Your task to perform on an android device: read, delete, or share a saved page in the chrome app Image 0: 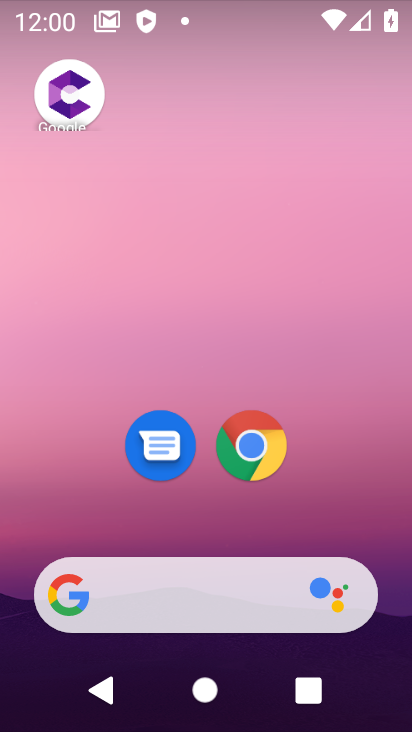
Step 0: drag from (348, 555) to (156, 170)
Your task to perform on an android device: read, delete, or share a saved page in the chrome app Image 1: 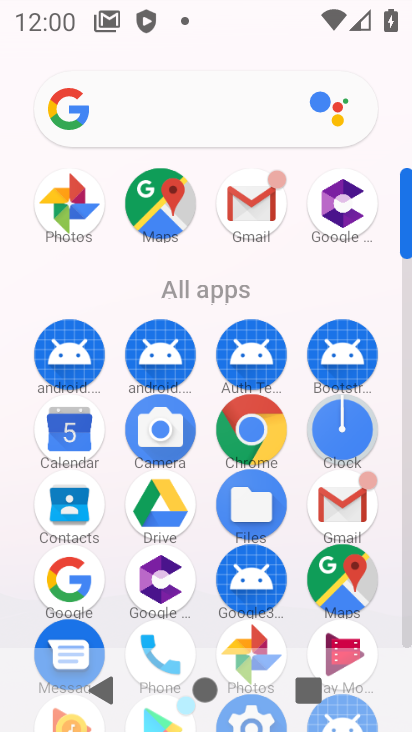
Step 1: click (253, 419)
Your task to perform on an android device: read, delete, or share a saved page in the chrome app Image 2: 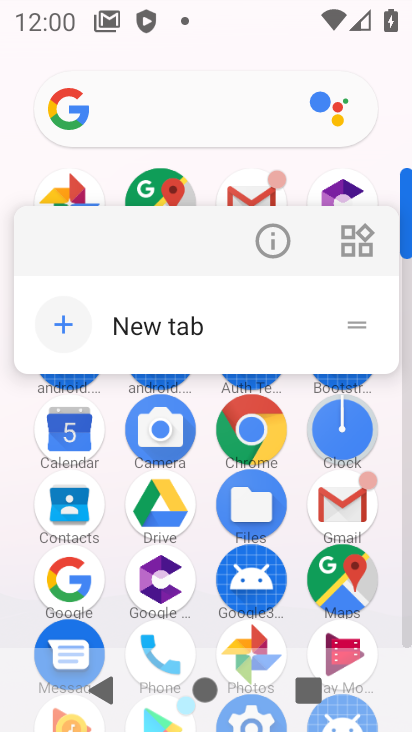
Step 2: click (398, 124)
Your task to perform on an android device: read, delete, or share a saved page in the chrome app Image 3: 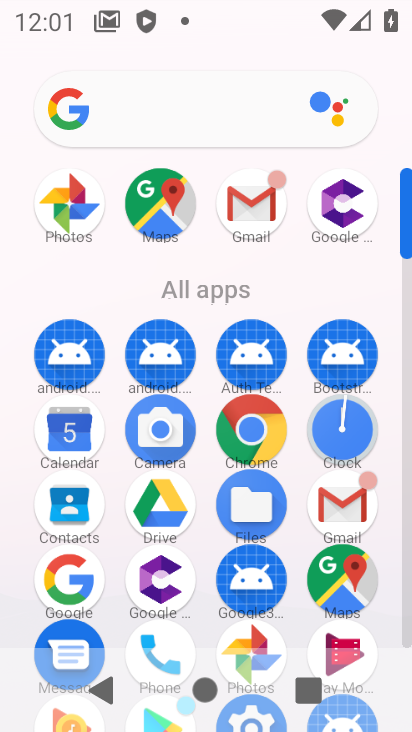
Step 3: click (242, 421)
Your task to perform on an android device: read, delete, or share a saved page in the chrome app Image 4: 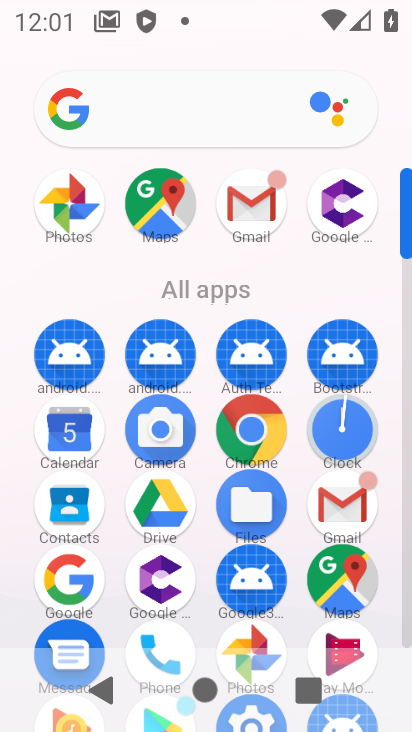
Step 4: click (242, 421)
Your task to perform on an android device: read, delete, or share a saved page in the chrome app Image 5: 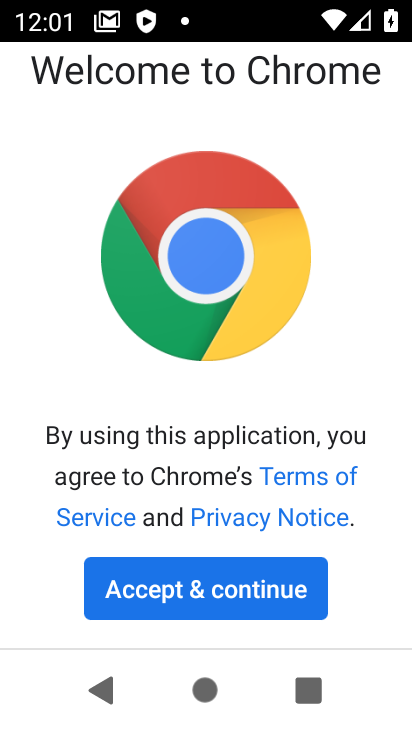
Step 5: click (214, 591)
Your task to perform on an android device: read, delete, or share a saved page in the chrome app Image 6: 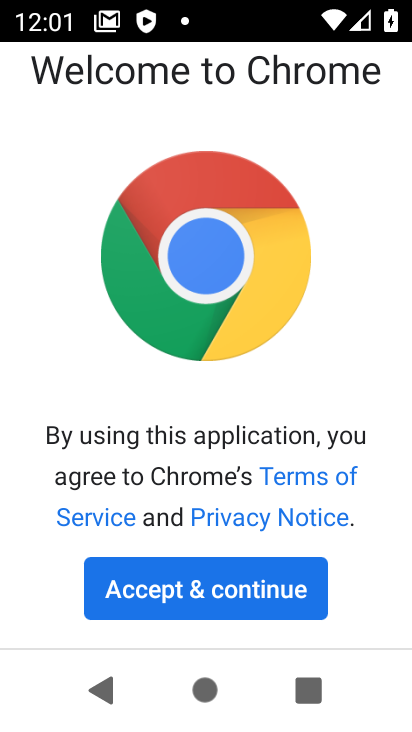
Step 6: click (214, 591)
Your task to perform on an android device: read, delete, or share a saved page in the chrome app Image 7: 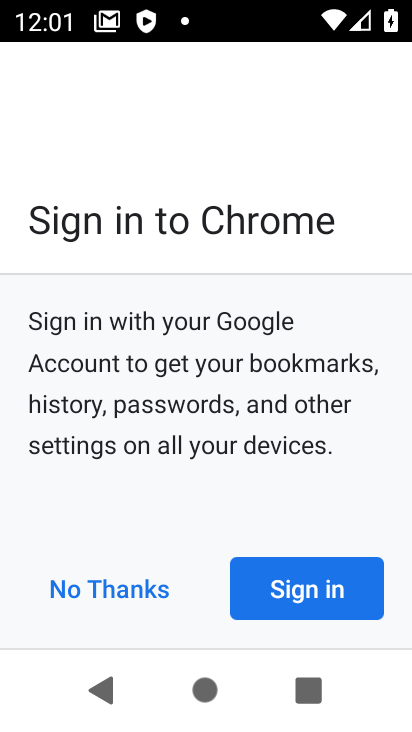
Step 7: click (214, 591)
Your task to perform on an android device: read, delete, or share a saved page in the chrome app Image 8: 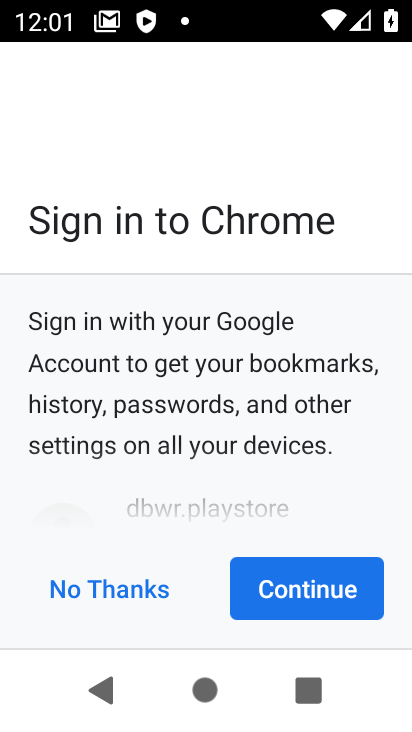
Step 8: click (306, 586)
Your task to perform on an android device: read, delete, or share a saved page in the chrome app Image 9: 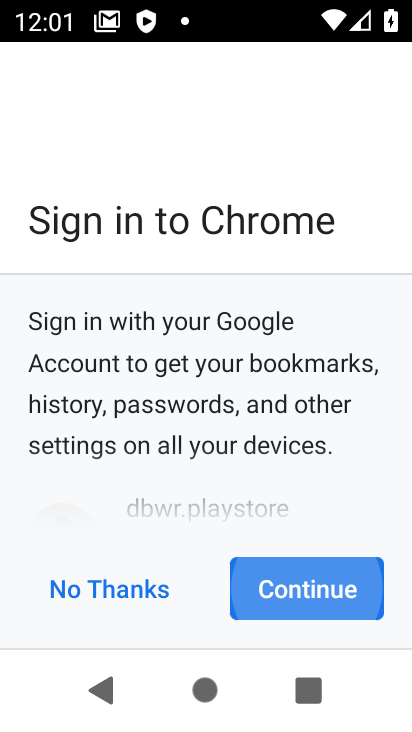
Step 9: click (307, 587)
Your task to perform on an android device: read, delete, or share a saved page in the chrome app Image 10: 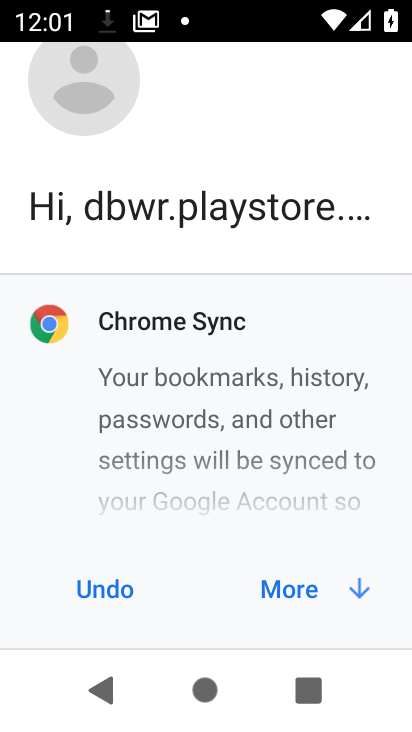
Step 10: click (307, 587)
Your task to perform on an android device: read, delete, or share a saved page in the chrome app Image 11: 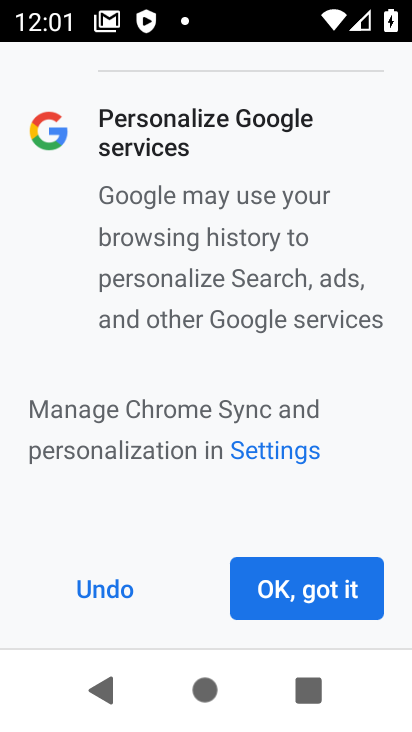
Step 11: click (318, 590)
Your task to perform on an android device: read, delete, or share a saved page in the chrome app Image 12: 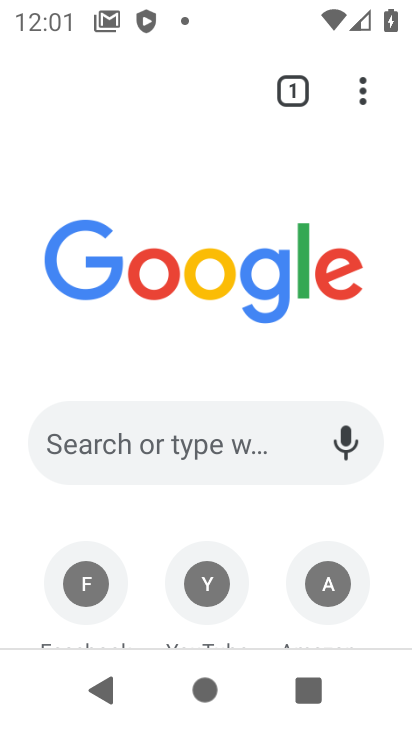
Step 12: click (367, 98)
Your task to perform on an android device: read, delete, or share a saved page in the chrome app Image 13: 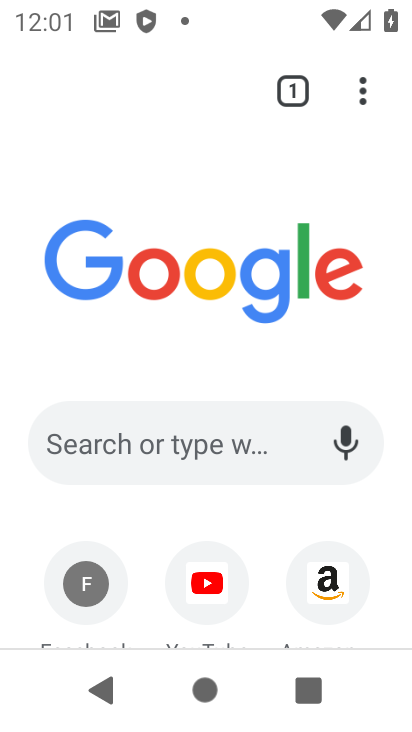
Step 13: click (367, 107)
Your task to perform on an android device: read, delete, or share a saved page in the chrome app Image 14: 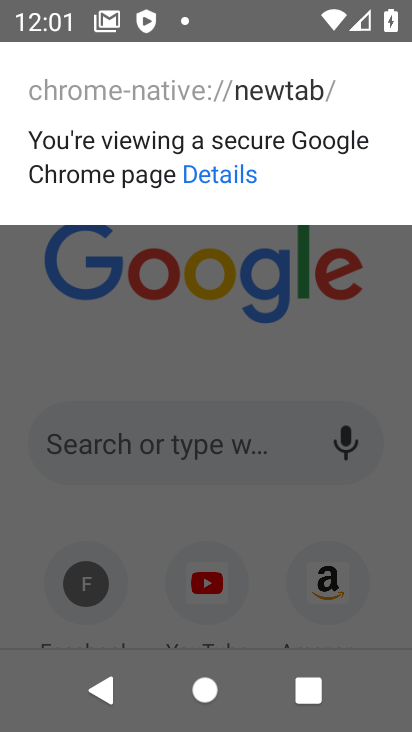
Step 14: click (204, 345)
Your task to perform on an android device: read, delete, or share a saved page in the chrome app Image 15: 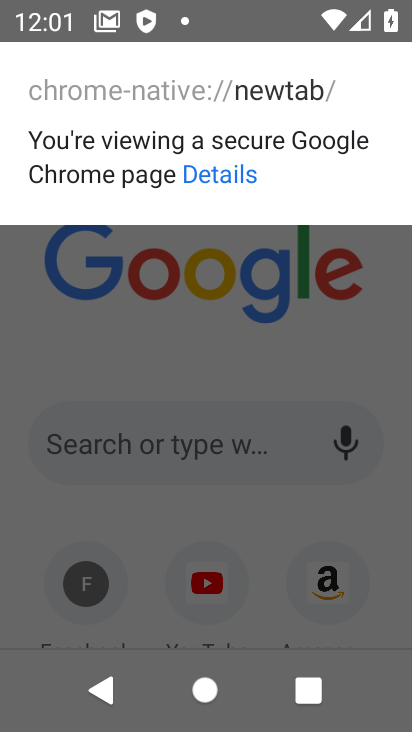
Step 15: click (204, 345)
Your task to perform on an android device: read, delete, or share a saved page in the chrome app Image 16: 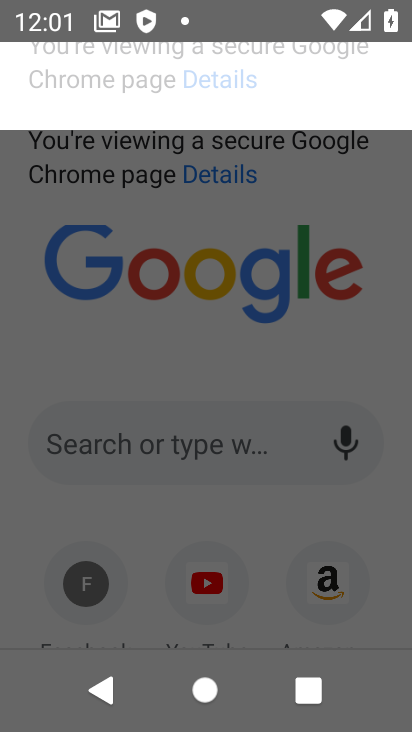
Step 16: click (205, 344)
Your task to perform on an android device: read, delete, or share a saved page in the chrome app Image 17: 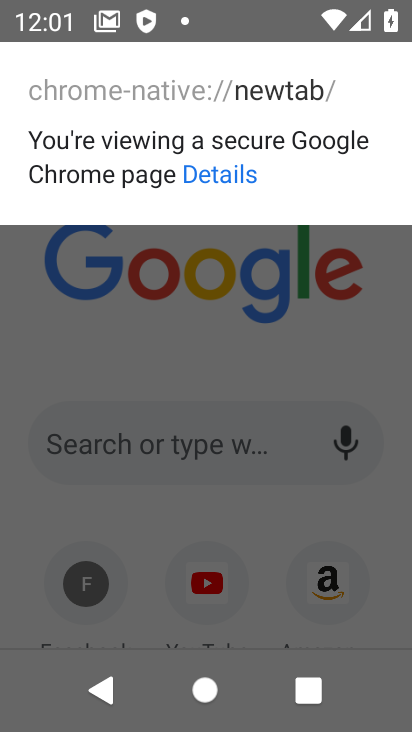
Step 17: click (205, 344)
Your task to perform on an android device: read, delete, or share a saved page in the chrome app Image 18: 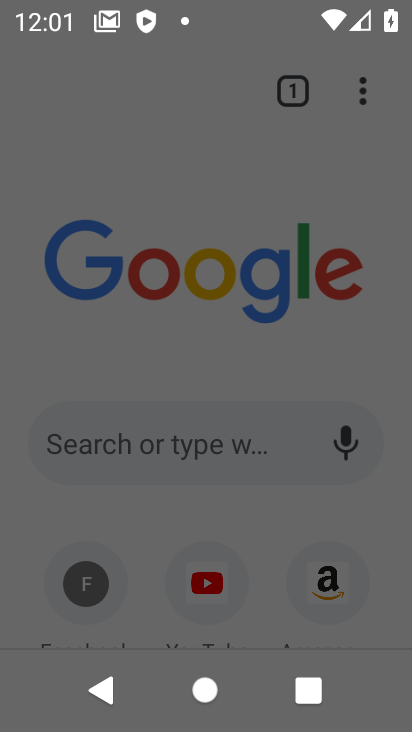
Step 18: click (205, 344)
Your task to perform on an android device: read, delete, or share a saved page in the chrome app Image 19: 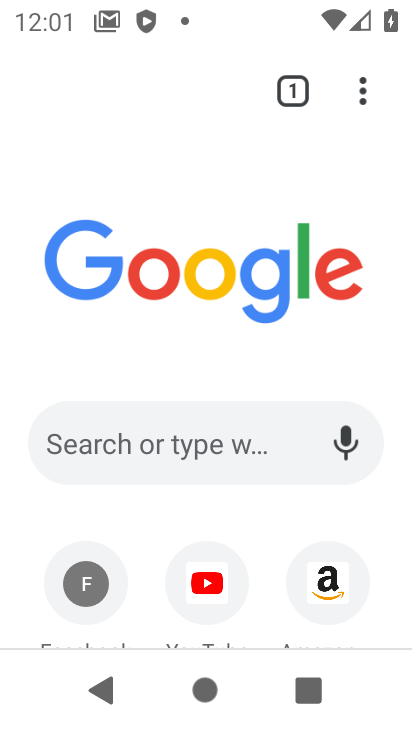
Step 19: click (363, 93)
Your task to perform on an android device: read, delete, or share a saved page in the chrome app Image 20: 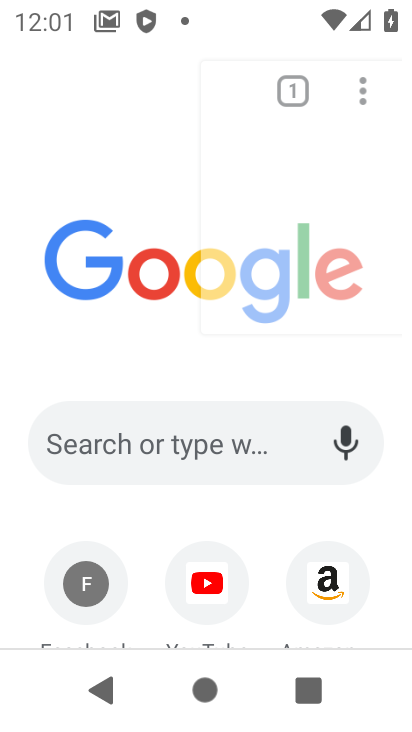
Step 20: click (360, 94)
Your task to perform on an android device: read, delete, or share a saved page in the chrome app Image 21: 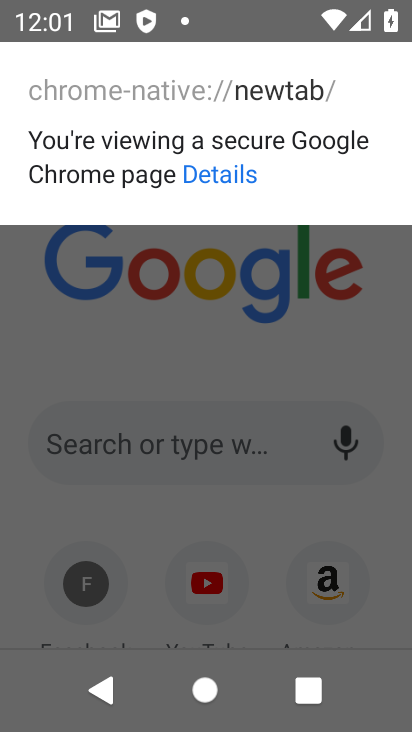
Step 21: click (350, 349)
Your task to perform on an android device: read, delete, or share a saved page in the chrome app Image 22: 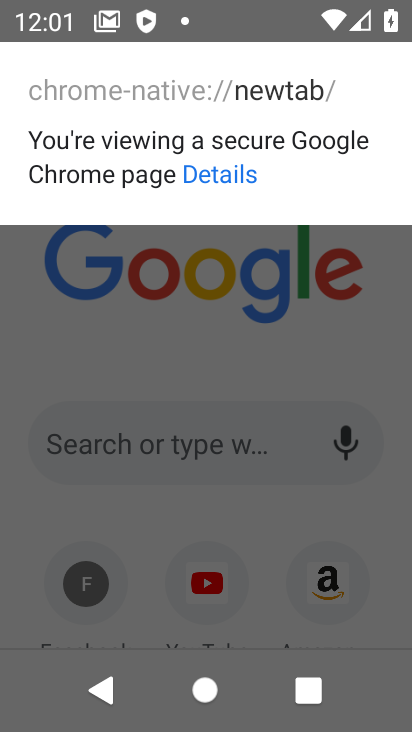
Step 22: click (350, 349)
Your task to perform on an android device: read, delete, or share a saved page in the chrome app Image 23: 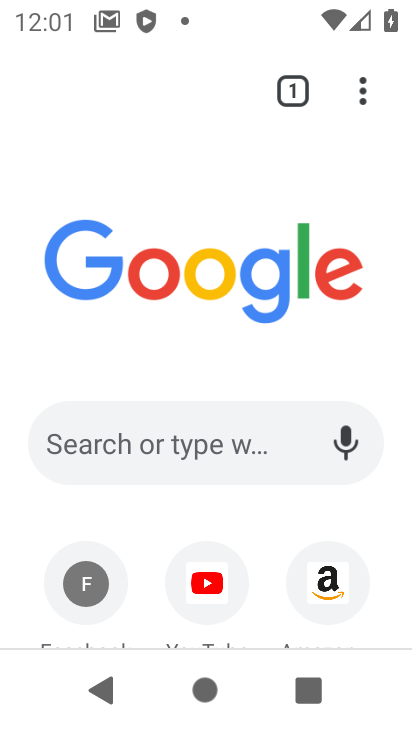
Step 23: click (352, 91)
Your task to perform on an android device: read, delete, or share a saved page in the chrome app Image 24: 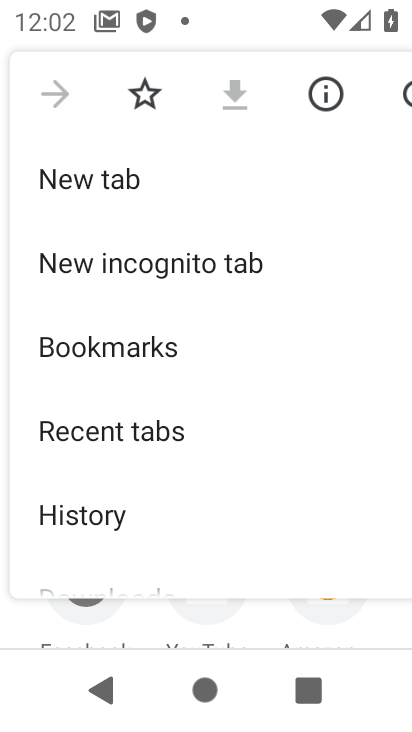
Step 24: drag from (170, 482) to (97, 159)
Your task to perform on an android device: read, delete, or share a saved page in the chrome app Image 25: 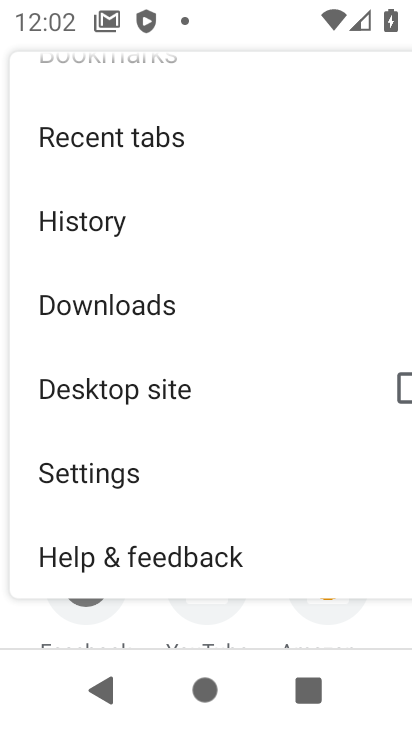
Step 25: drag from (183, 503) to (127, 159)
Your task to perform on an android device: read, delete, or share a saved page in the chrome app Image 26: 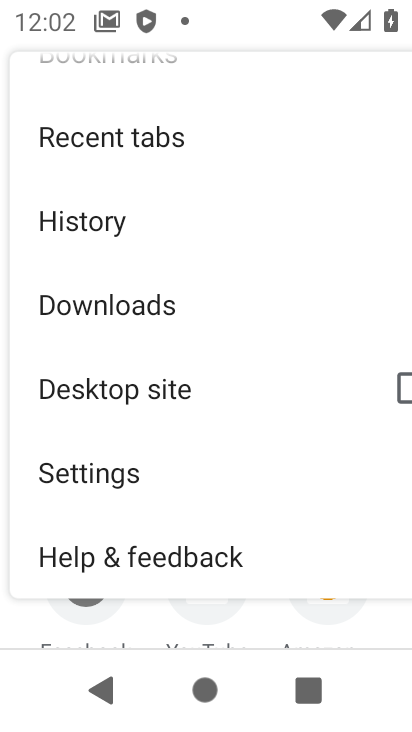
Step 26: drag from (213, 534) to (160, 278)
Your task to perform on an android device: read, delete, or share a saved page in the chrome app Image 27: 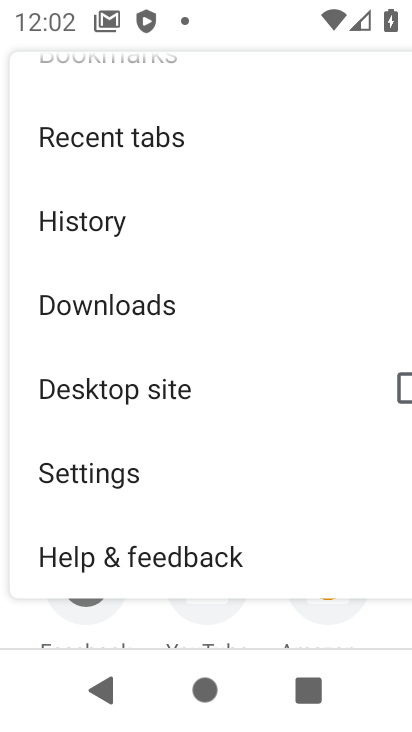
Step 27: click (122, 301)
Your task to perform on an android device: read, delete, or share a saved page in the chrome app Image 28: 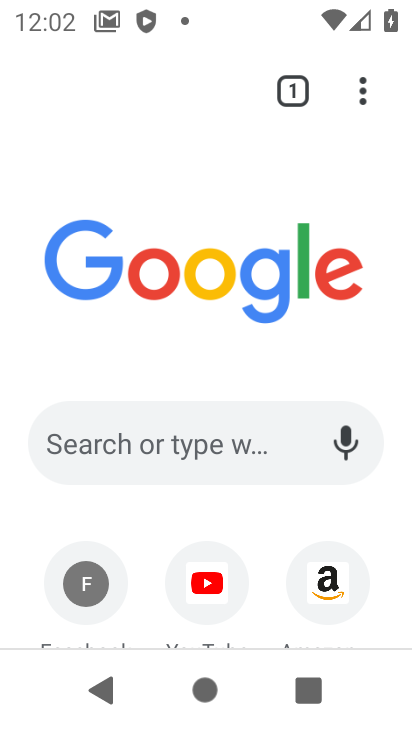
Step 28: click (115, 310)
Your task to perform on an android device: read, delete, or share a saved page in the chrome app Image 29: 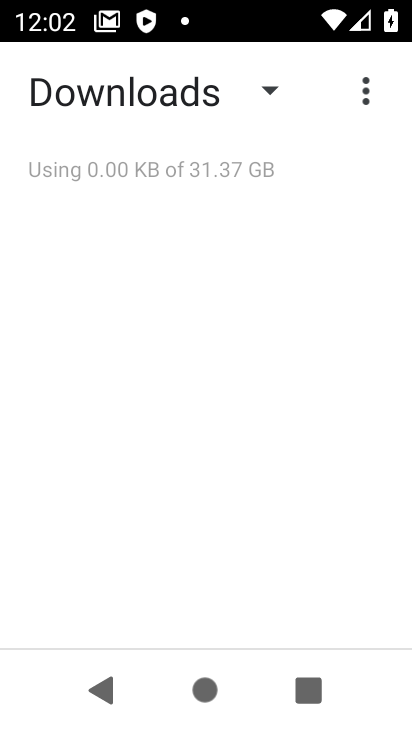
Step 29: click (369, 97)
Your task to perform on an android device: read, delete, or share a saved page in the chrome app Image 30: 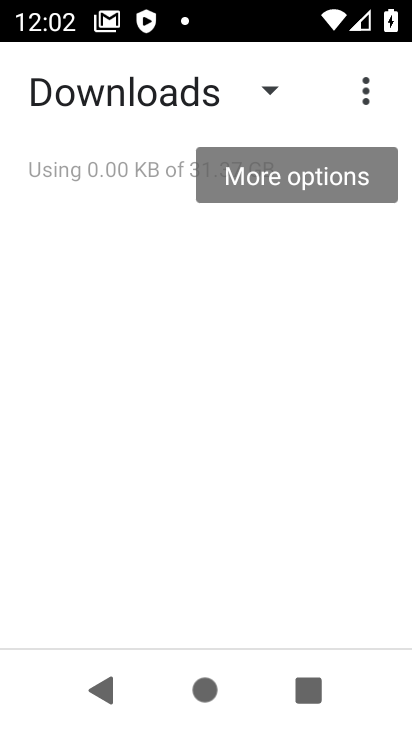
Step 30: click (363, 86)
Your task to perform on an android device: read, delete, or share a saved page in the chrome app Image 31: 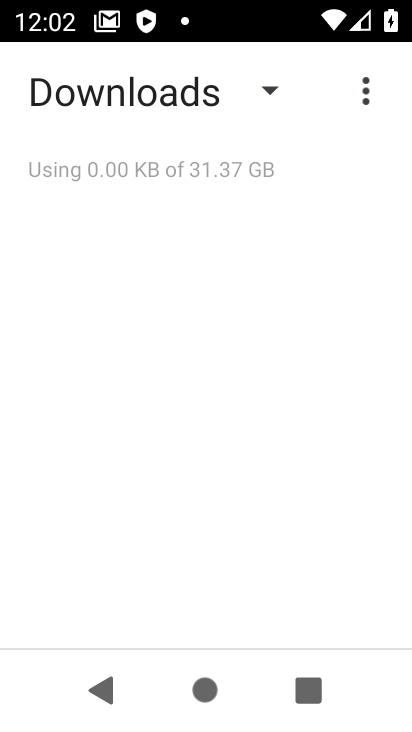
Step 31: click (271, 89)
Your task to perform on an android device: read, delete, or share a saved page in the chrome app Image 32: 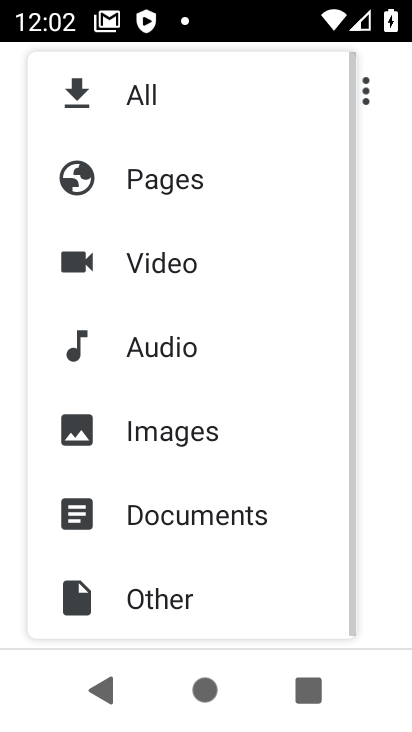
Step 32: click (159, 174)
Your task to perform on an android device: read, delete, or share a saved page in the chrome app Image 33: 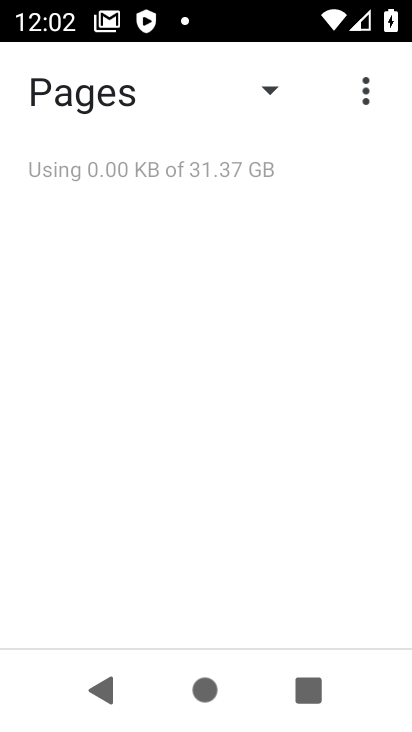
Step 33: task complete